Your task to perform on an android device: Clear the cart on bestbuy.com. Search for "logitech g pro" on bestbuy.com, select the first entry, add it to the cart, then select checkout. Image 0: 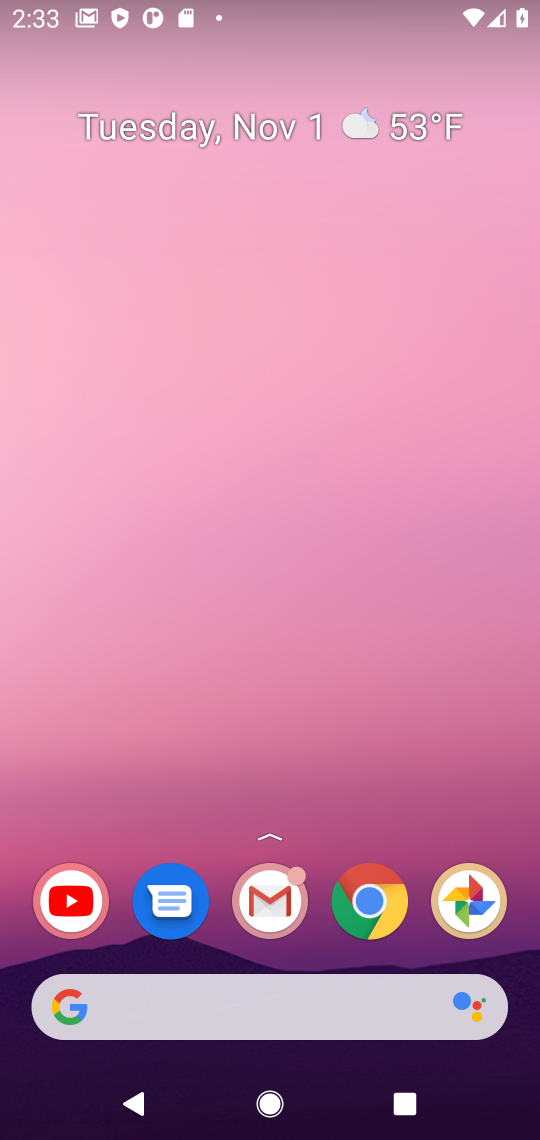
Step 0: click (375, 911)
Your task to perform on an android device: Clear the cart on bestbuy.com. Search for "logitech g pro" on bestbuy.com, select the first entry, add it to the cart, then select checkout. Image 1: 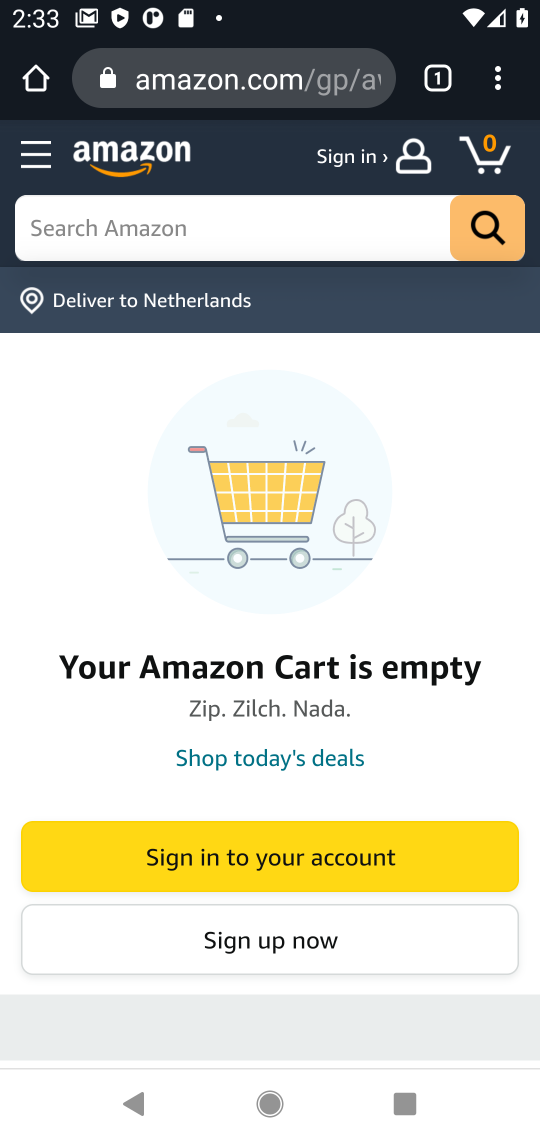
Step 1: click (262, 64)
Your task to perform on an android device: Clear the cart on bestbuy.com. Search for "logitech g pro" on bestbuy.com, select the first entry, add it to the cart, then select checkout. Image 2: 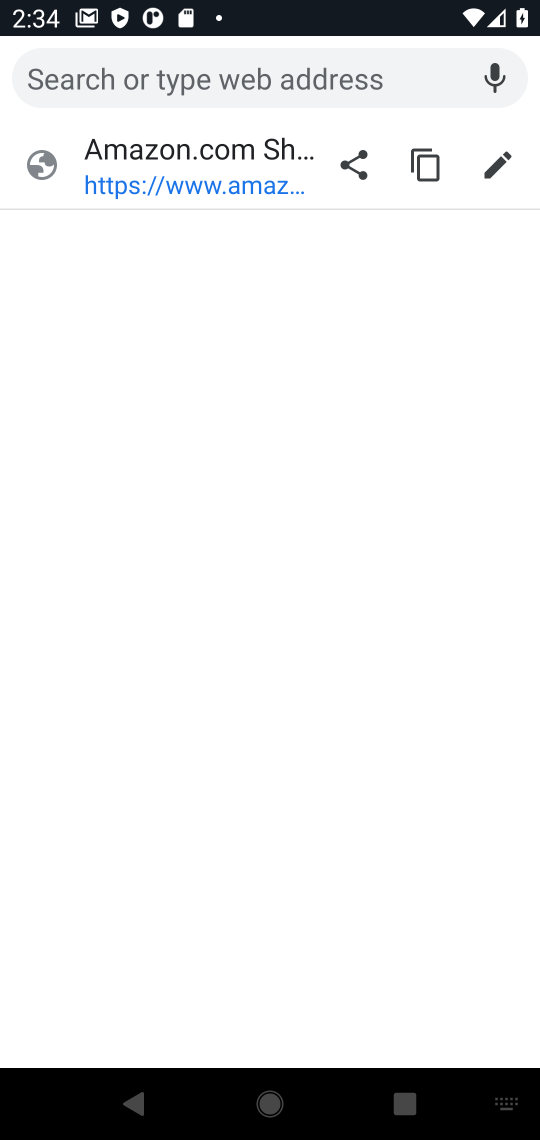
Step 2: type "bestbuy.com"
Your task to perform on an android device: Clear the cart on bestbuy.com. Search for "logitech g pro" on bestbuy.com, select the first entry, add it to the cart, then select checkout. Image 3: 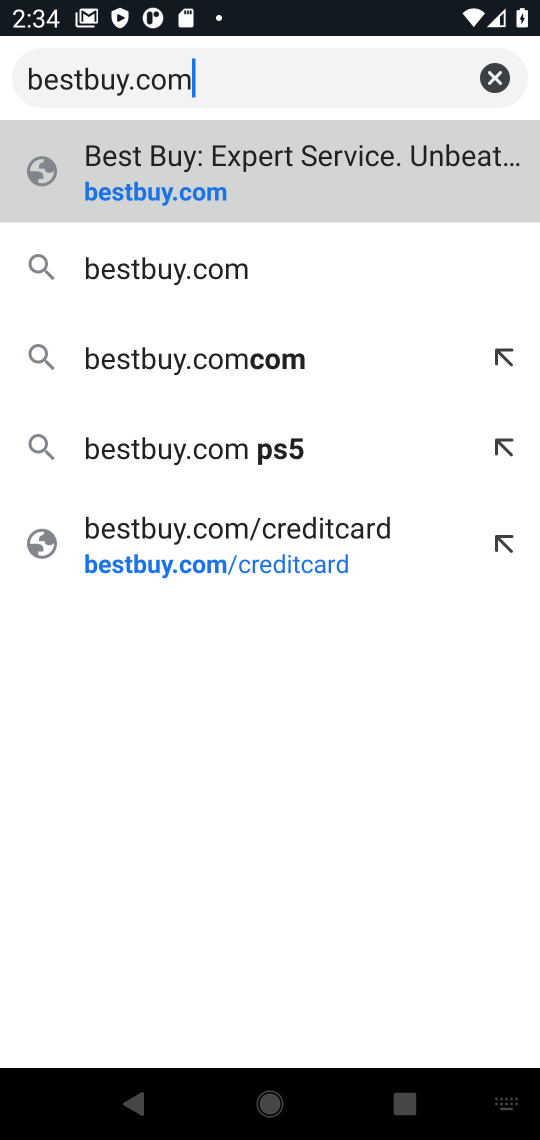
Step 3: press enter
Your task to perform on an android device: Clear the cart on bestbuy.com. Search for "logitech g pro" on bestbuy.com, select the first entry, add it to the cart, then select checkout. Image 4: 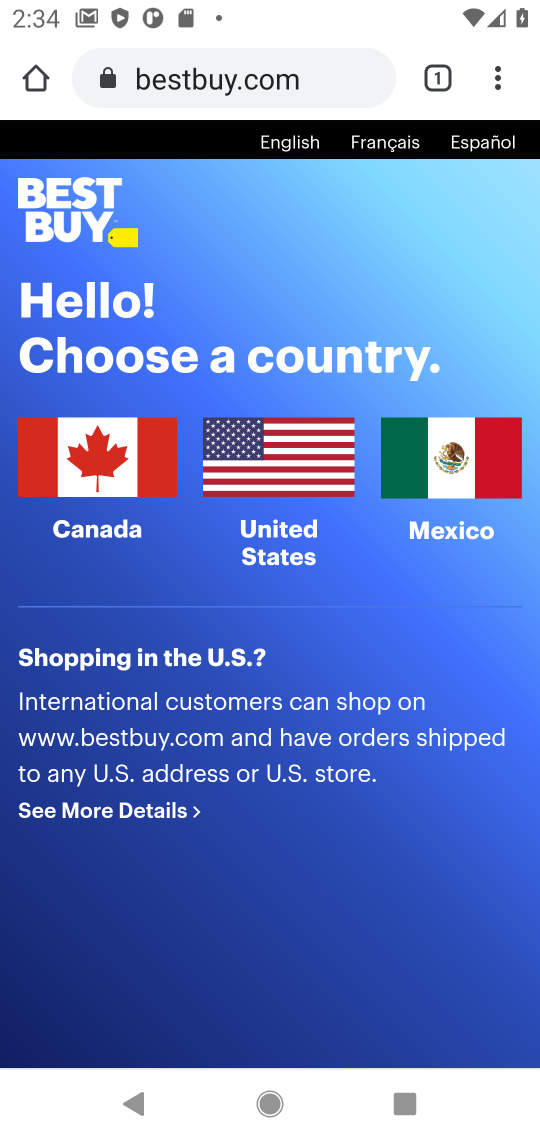
Step 4: click (307, 459)
Your task to perform on an android device: Clear the cart on bestbuy.com. Search for "logitech g pro" on bestbuy.com, select the first entry, add it to the cart, then select checkout. Image 5: 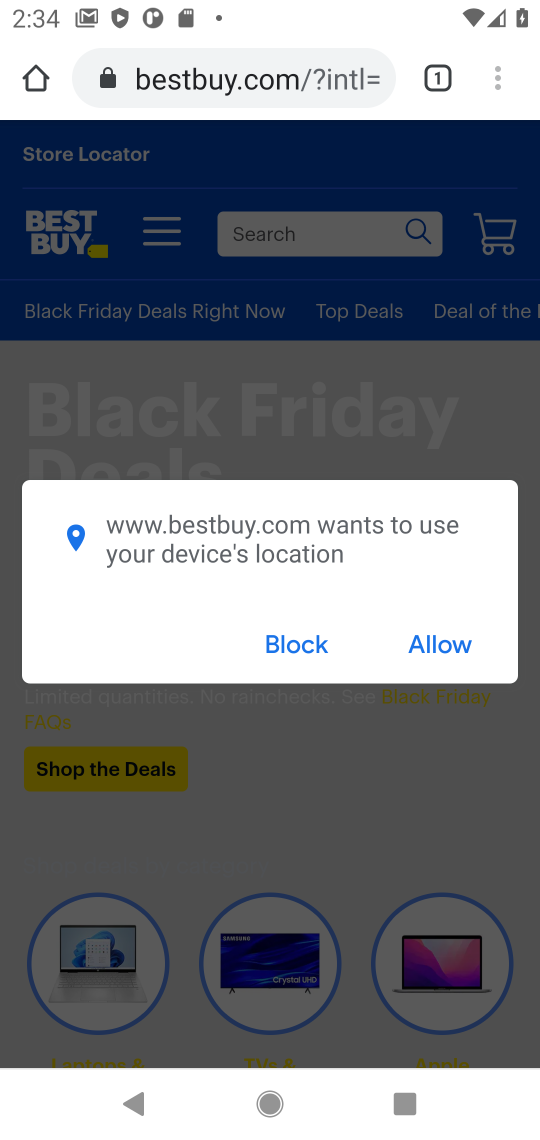
Step 5: click (495, 233)
Your task to perform on an android device: Clear the cart on bestbuy.com. Search for "logitech g pro" on bestbuy.com, select the first entry, add it to the cart, then select checkout. Image 6: 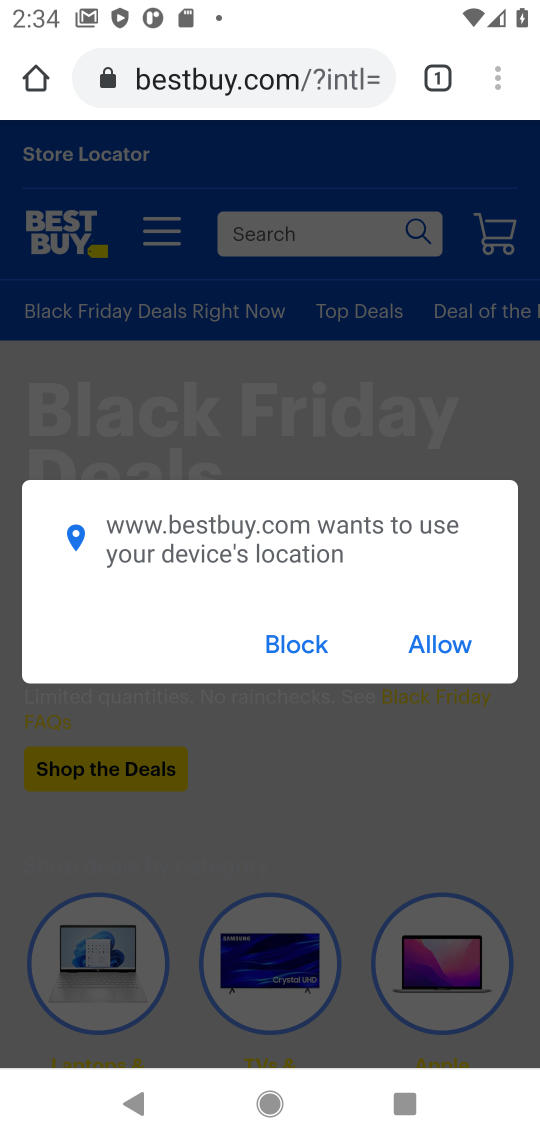
Step 6: click (463, 652)
Your task to perform on an android device: Clear the cart on bestbuy.com. Search for "logitech g pro" on bestbuy.com, select the first entry, add it to the cart, then select checkout. Image 7: 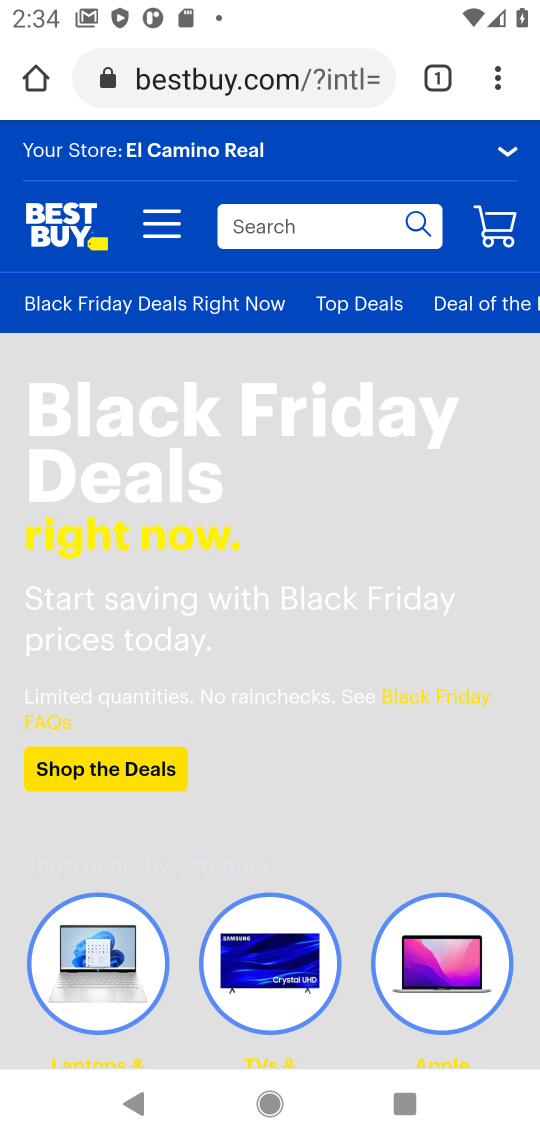
Step 7: click (489, 232)
Your task to perform on an android device: Clear the cart on bestbuy.com. Search for "logitech g pro" on bestbuy.com, select the first entry, add it to the cart, then select checkout. Image 8: 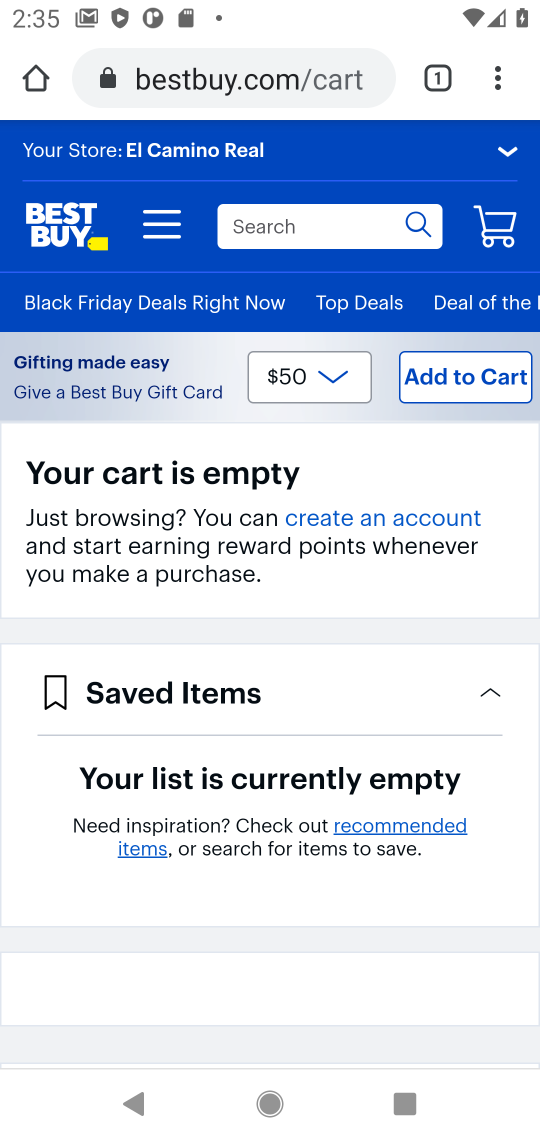
Step 8: click (328, 223)
Your task to perform on an android device: Clear the cart on bestbuy.com. Search for "logitech g pro" on bestbuy.com, select the first entry, add it to the cart, then select checkout. Image 9: 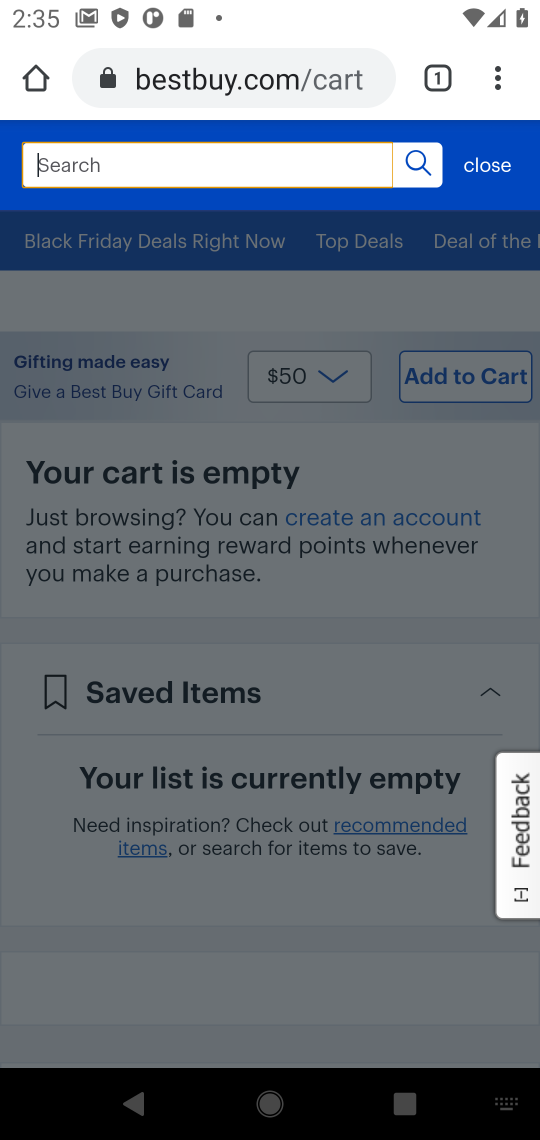
Step 9: type "logitech g pro"
Your task to perform on an android device: Clear the cart on bestbuy.com. Search for "logitech g pro" on bestbuy.com, select the first entry, add it to the cart, then select checkout. Image 10: 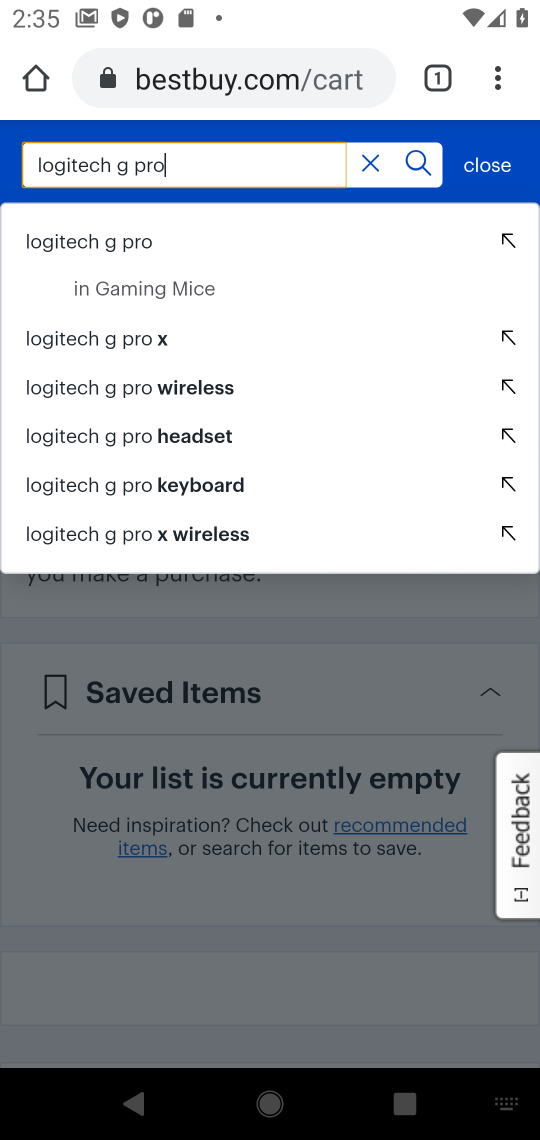
Step 10: press enter
Your task to perform on an android device: Clear the cart on bestbuy.com. Search for "logitech g pro" on bestbuy.com, select the first entry, add it to the cart, then select checkout. Image 11: 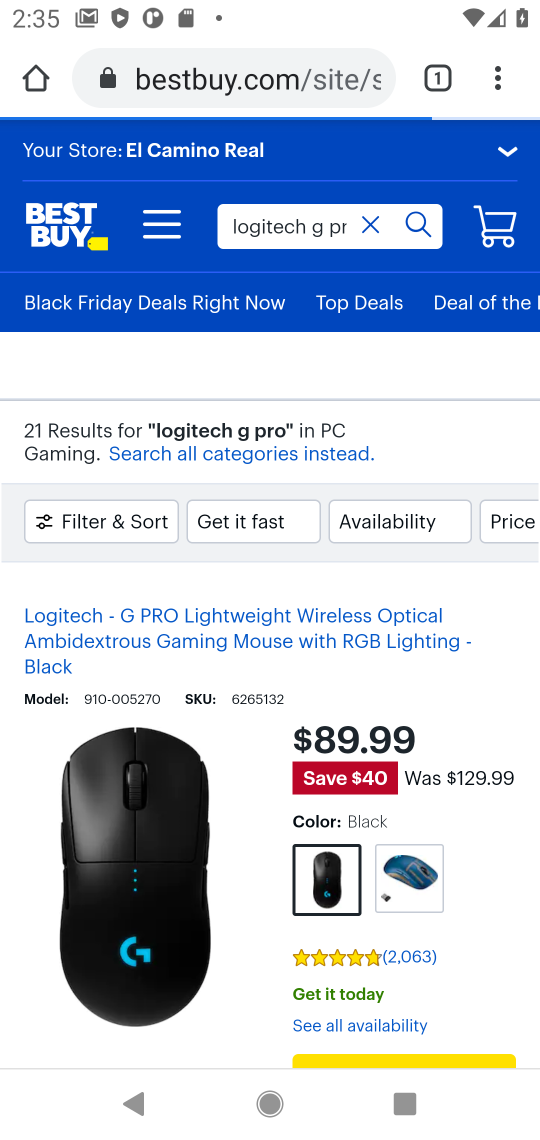
Step 11: click (197, 623)
Your task to perform on an android device: Clear the cart on bestbuy.com. Search for "logitech g pro" on bestbuy.com, select the first entry, add it to the cart, then select checkout. Image 12: 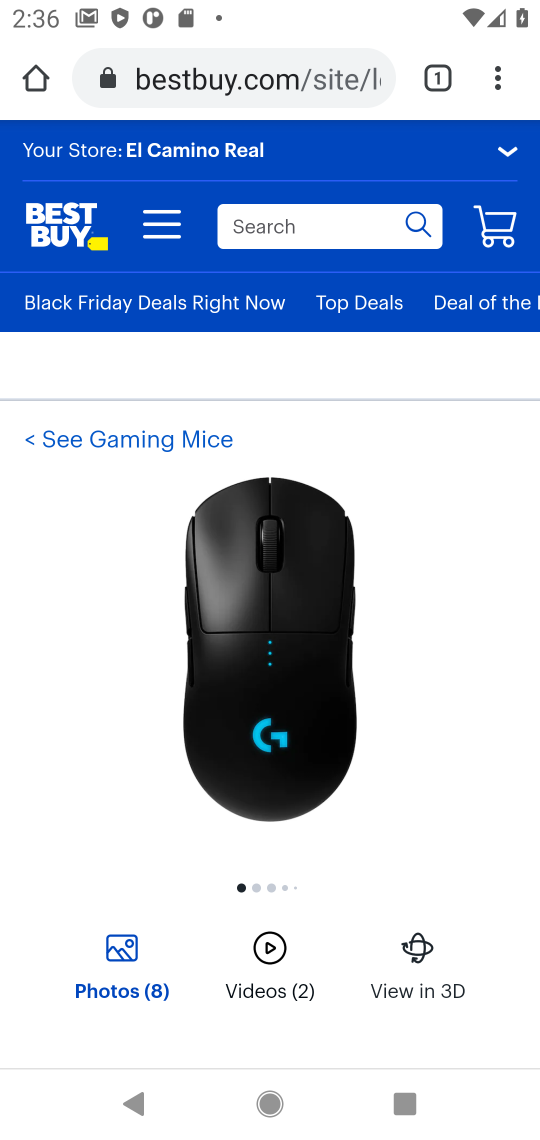
Step 12: drag from (346, 892) to (279, 660)
Your task to perform on an android device: Clear the cart on bestbuy.com. Search for "logitech g pro" on bestbuy.com, select the first entry, add it to the cart, then select checkout. Image 13: 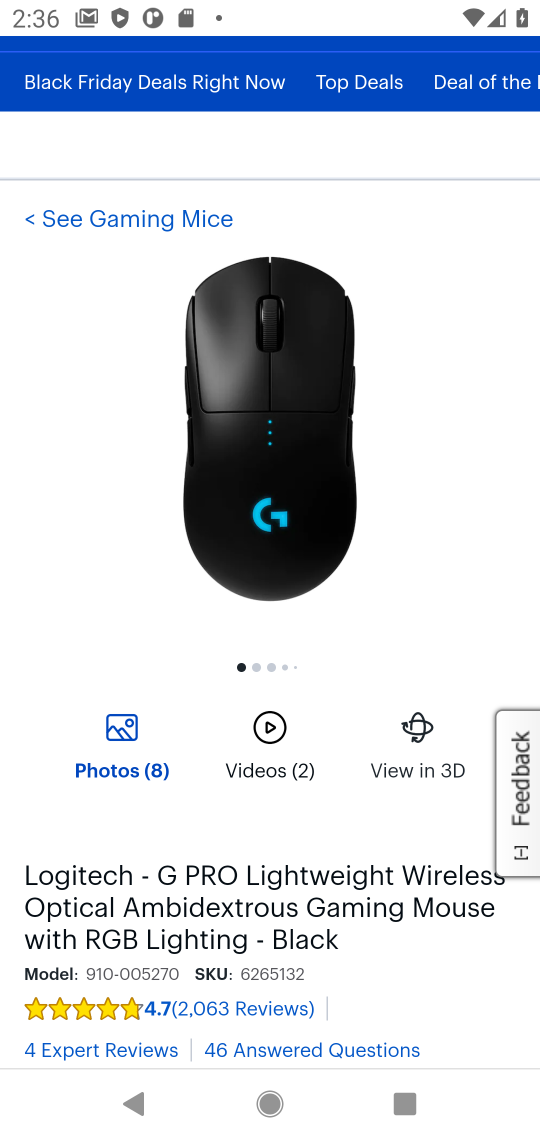
Step 13: drag from (465, 1035) to (357, 370)
Your task to perform on an android device: Clear the cart on bestbuy.com. Search for "logitech g pro" on bestbuy.com, select the first entry, add it to the cart, then select checkout. Image 14: 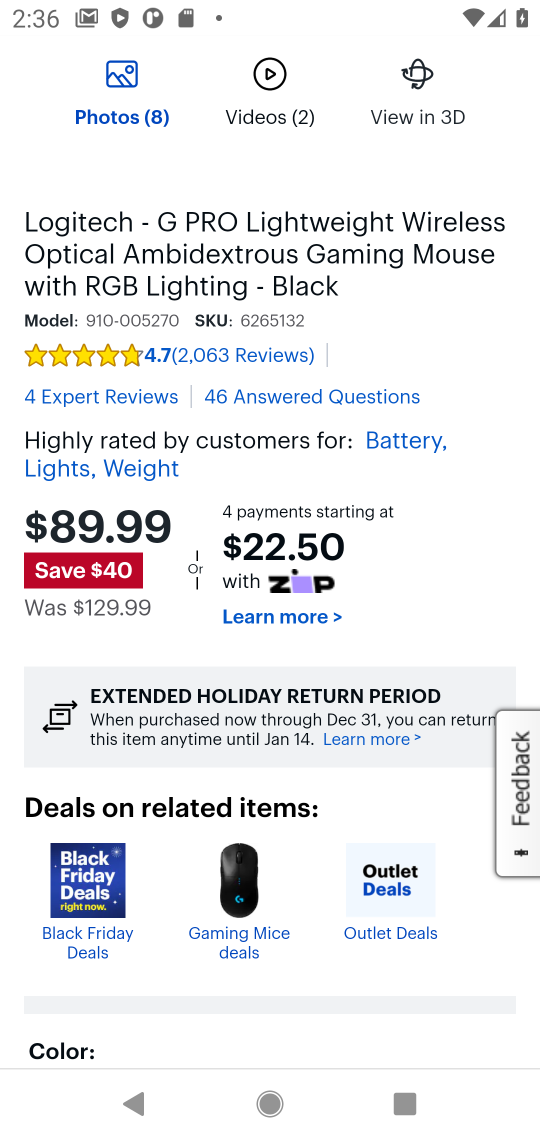
Step 14: drag from (454, 589) to (285, 193)
Your task to perform on an android device: Clear the cart on bestbuy.com. Search for "logitech g pro" on bestbuy.com, select the first entry, add it to the cart, then select checkout. Image 15: 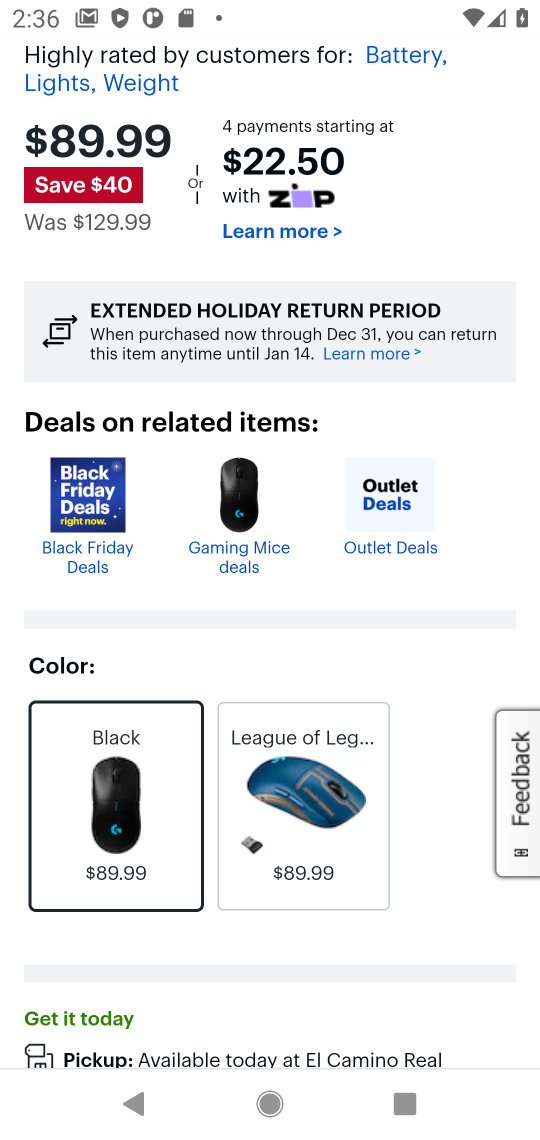
Step 15: drag from (384, 953) to (226, 365)
Your task to perform on an android device: Clear the cart on bestbuy.com. Search for "logitech g pro" on bestbuy.com, select the first entry, add it to the cart, then select checkout. Image 16: 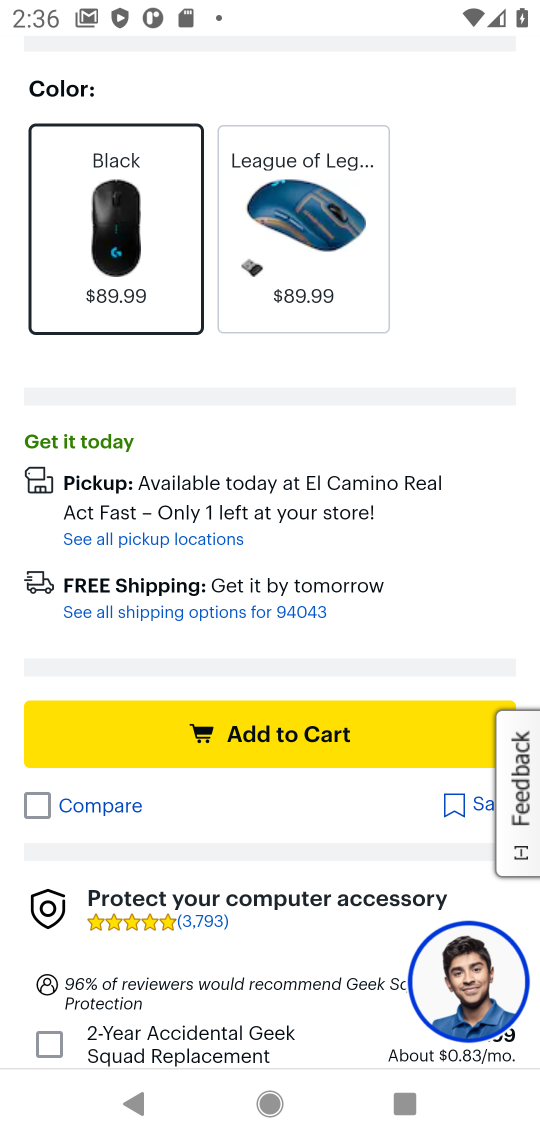
Step 16: click (315, 728)
Your task to perform on an android device: Clear the cart on bestbuy.com. Search for "logitech g pro" on bestbuy.com, select the first entry, add it to the cart, then select checkout. Image 17: 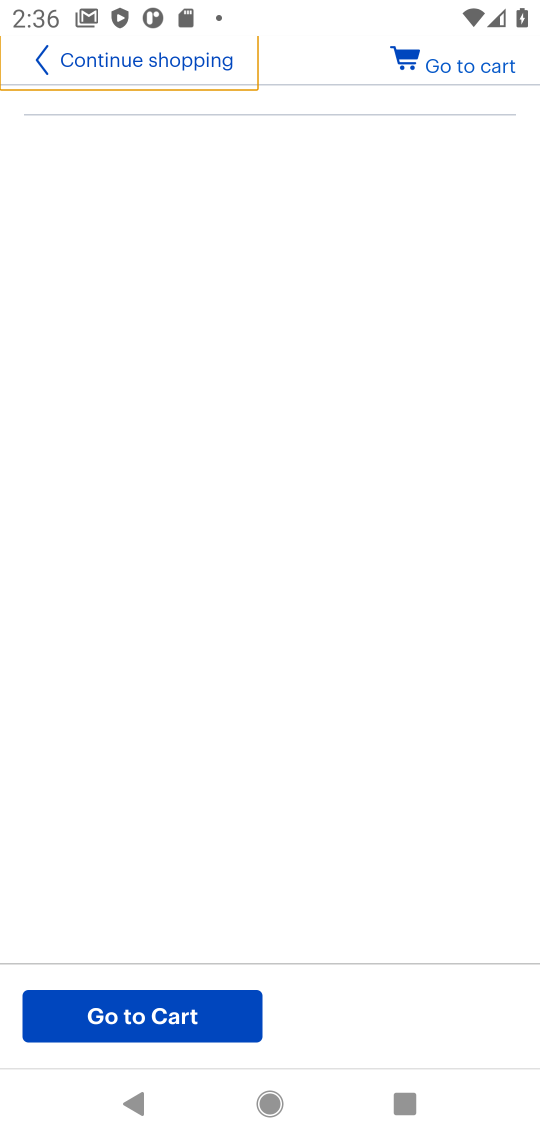
Step 17: drag from (482, 406) to (537, 320)
Your task to perform on an android device: Clear the cart on bestbuy.com. Search for "logitech g pro" on bestbuy.com, select the first entry, add it to the cart, then select checkout. Image 18: 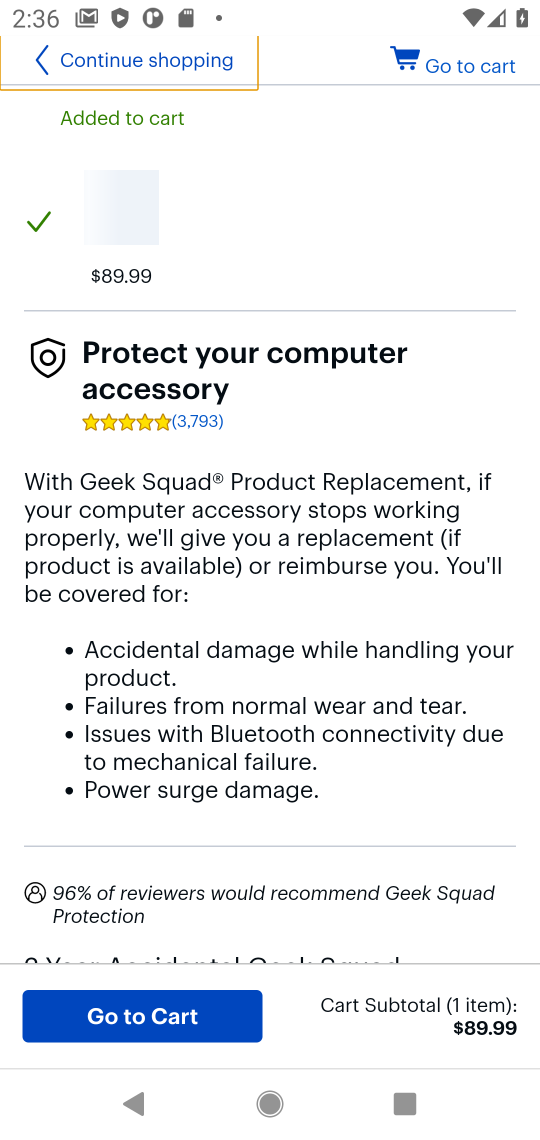
Step 18: click (185, 1012)
Your task to perform on an android device: Clear the cart on bestbuy.com. Search for "logitech g pro" on bestbuy.com, select the first entry, add it to the cart, then select checkout. Image 19: 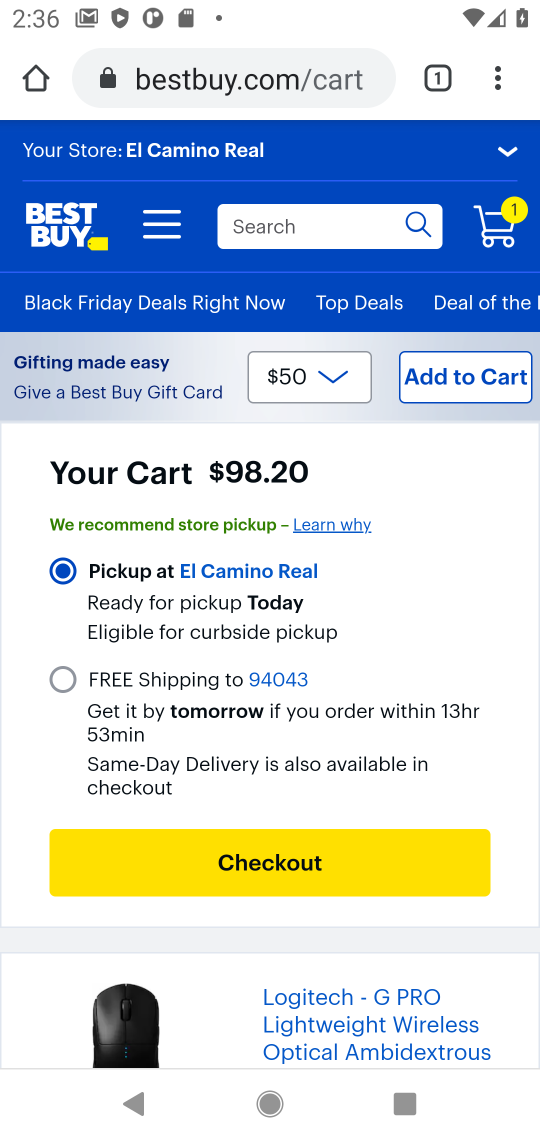
Step 19: click (286, 863)
Your task to perform on an android device: Clear the cart on bestbuy.com. Search for "logitech g pro" on bestbuy.com, select the first entry, add it to the cart, then select checkout. Image 20: 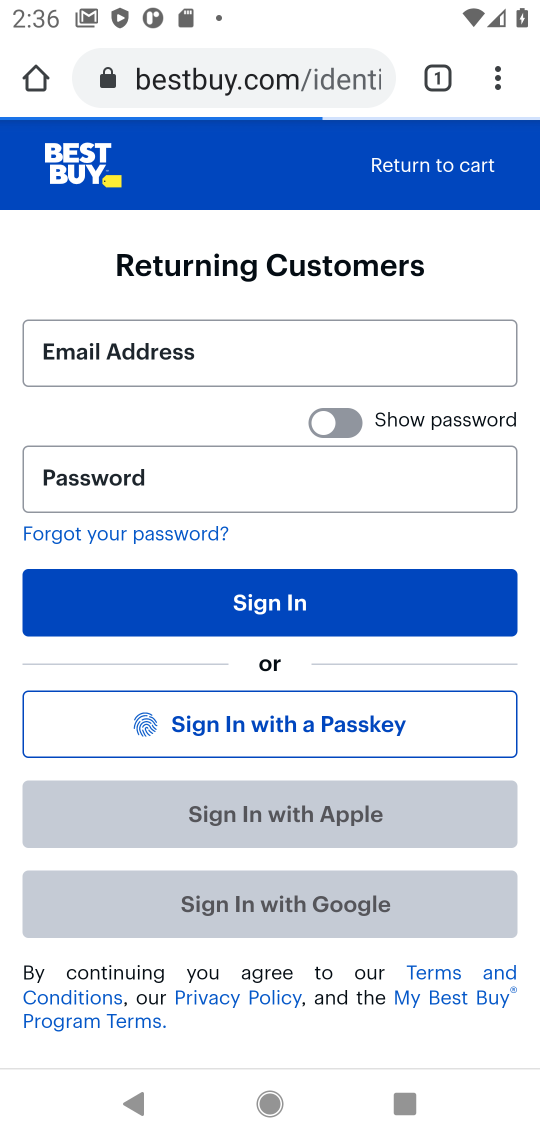
Step 20: task complete